Your task to perform on an android device: What's the weather going to be this weekend? Image 0: 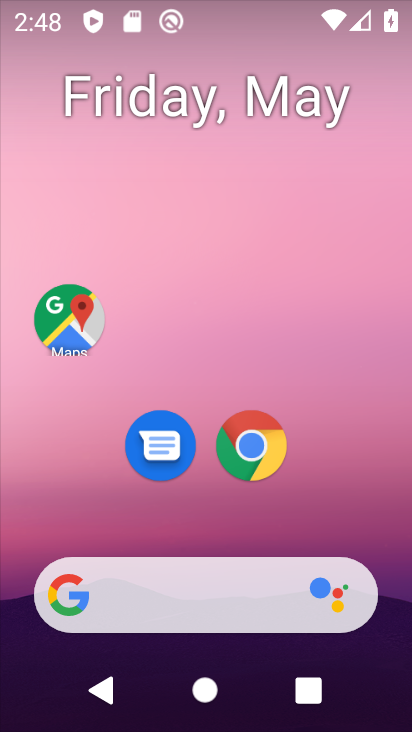
Step 0: drag from (235, 713) to (37, 165)
Your task to perform on an android device: What's the weather going to be this weekend? Image 1: 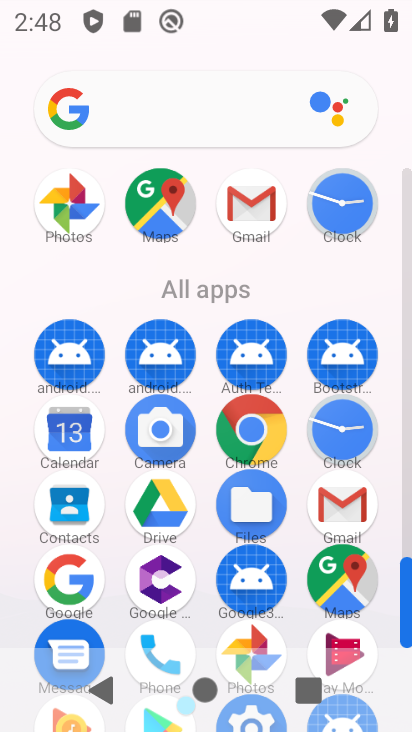
Step 1: press back button
Your task to perform on an android device: What's the weather going to be this weekend? Image 2: 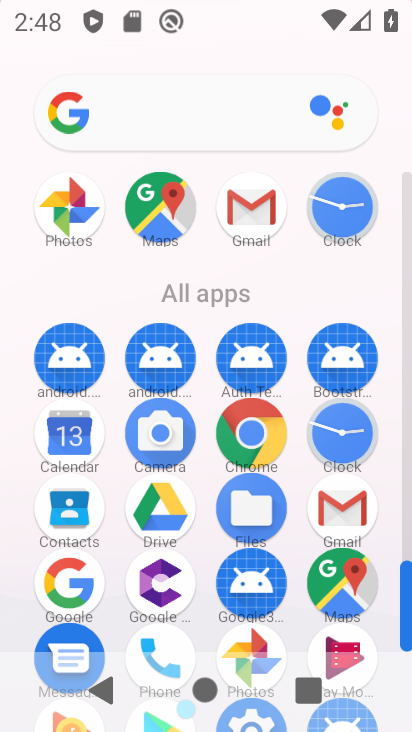
Step 2: press back button
Your task to perform on an android device: What's the weather going to be this weekend? Image 3: 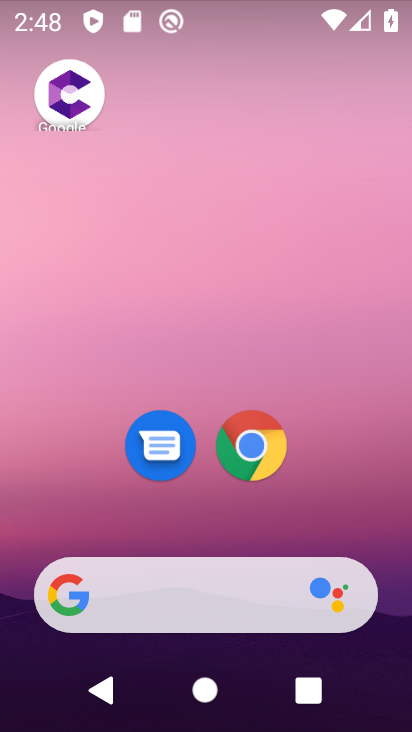
Step 3: drag from (16, 201) to (401, 463)
Your task to perform on an android device: What's the weather going to be this weekend? Image 4: 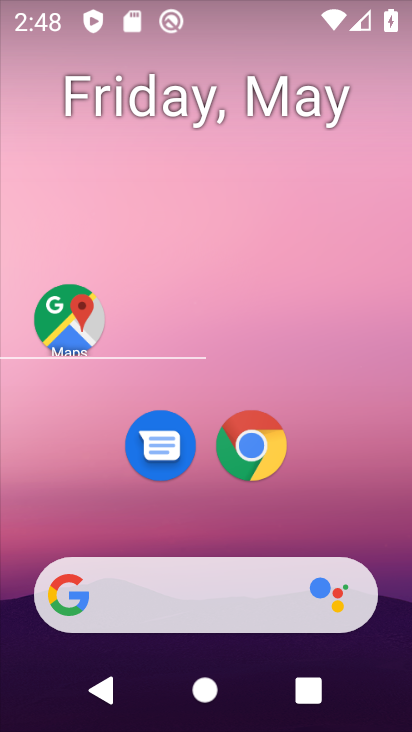
Step 4: drag from (0, 211) to (409, 497)
Your task to perform on an android device: What's the weather going to be this weekend? Image 5: 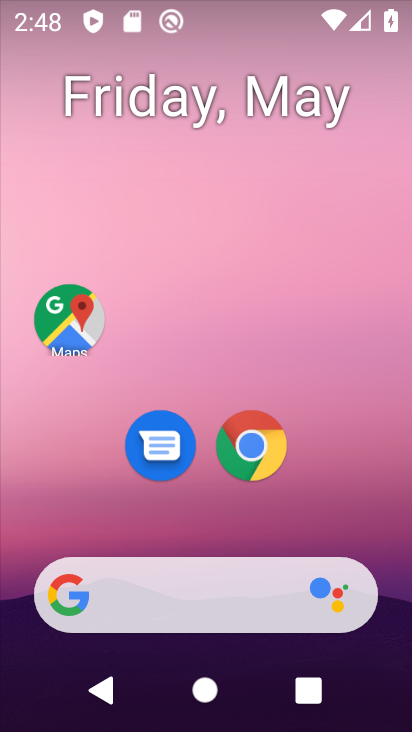
Step 5: drag from (31, 165) to (406, 394)
Your task to perform on an android device: What's the weather going to be this weekend? Image 6: 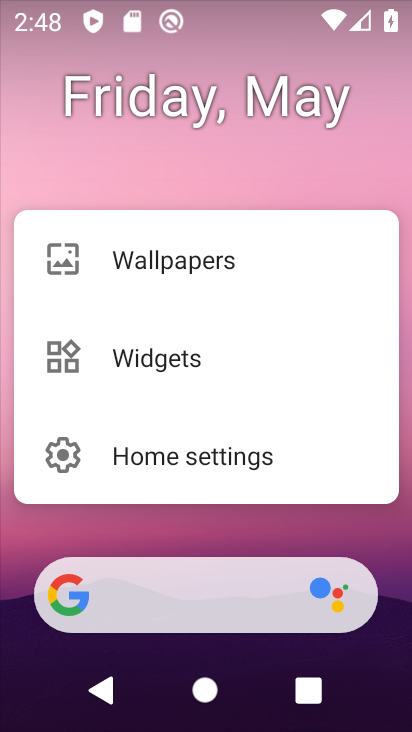
Step 6: click (122, 168)
Your task to perform on an android device: What's the weather going to be this weekend? Image 7: 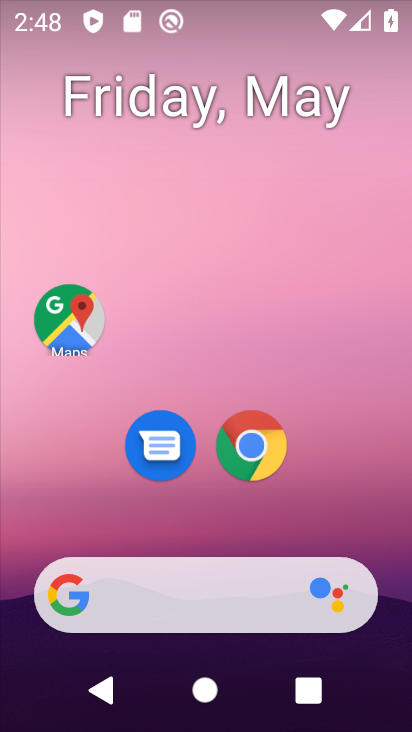
Step 7: click (120, 168)
Your task to perform on an android device: What's the weather going to be this weekend? Image 8: 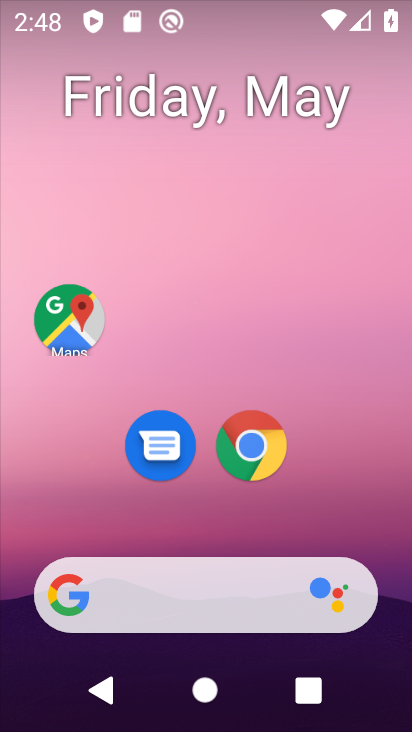
Step 8: drag from (23, 248) to (366, 455)
Your task to perform on an android device: What's the weather going to be this weekend? Image 9: 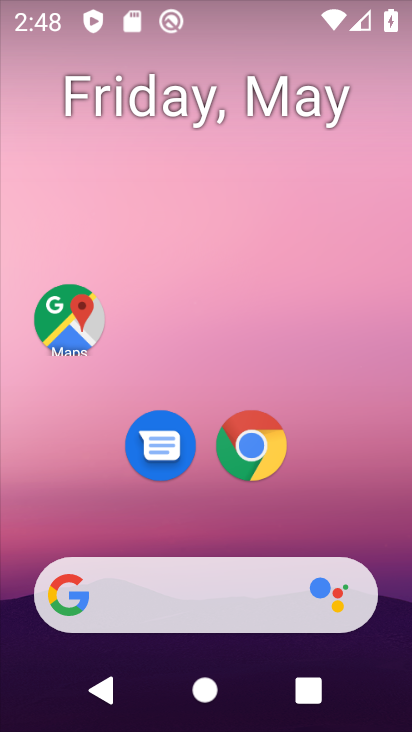
Step 9: click (393, 401)
Your task to perform on an android device: What's the weather going to be this weekend? Image 10: 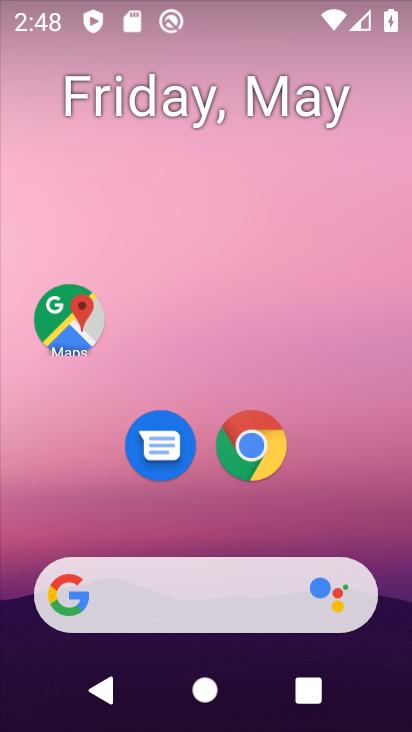
Step 10: drag from (56, 234) to (362, 338)
Your task to perform on an android device: What's the weather going to be this weekend? Image 11: 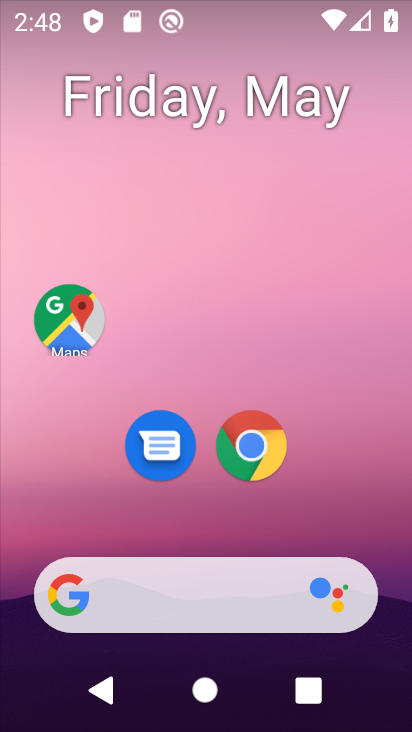
Step 11: drag from (46, 166) to (345, 314)
Your task to perform on an android device: What's the weather going to be this weekend? Image 12: 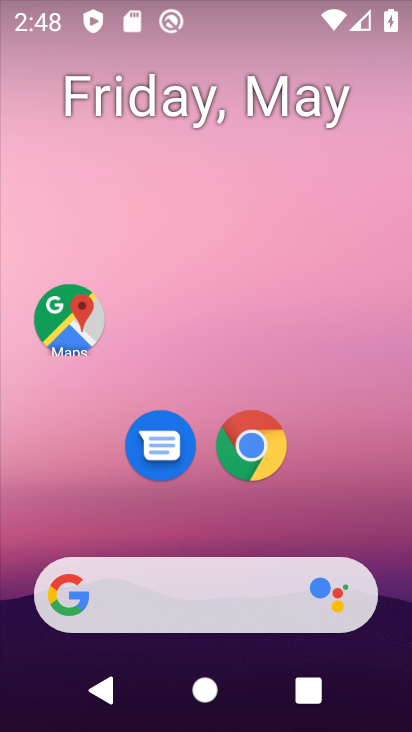
Step 12: drag from (244, 309) to (362, 327)
Your task to perform on an android device: What's the weather going to be this weekend? Image 13: 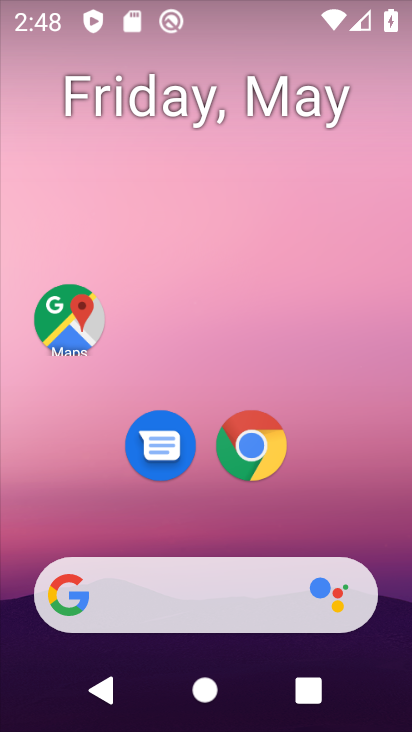
Step 13: drag from (9, 180) to (334, 253)
Your task to perform on an android device: What's the weather going to be this weekend? Image 14: 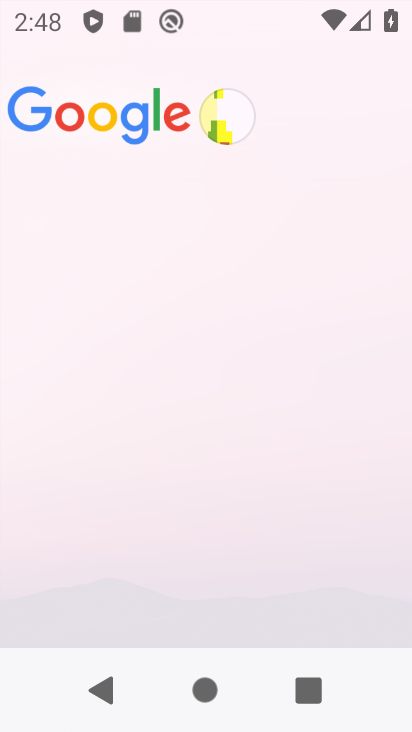
Step 14: drag from (91, 209) to (397, 348)
Your task to perform on an android device: What's the weather going to be this weekend? Image 15: 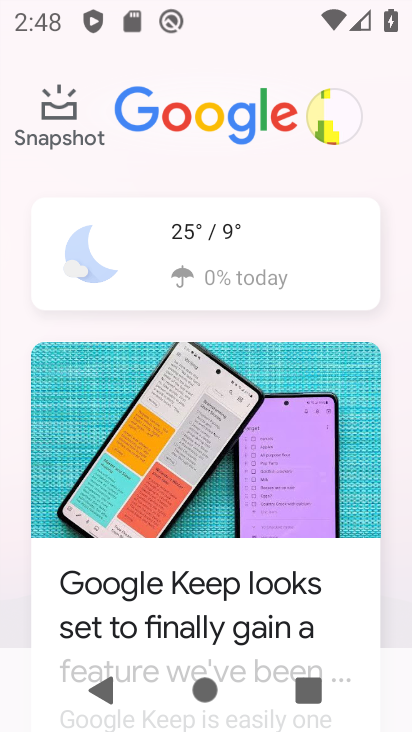
Step 15: click (193, 280)
Your task to perform on an android device: What's the weather going to be this weekend? Image 16: 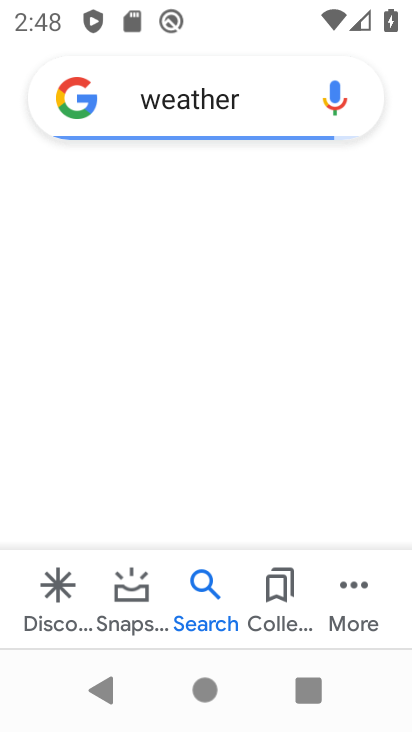
Step 16: click (192, 278)
Your task to perform on an android device: What's the weather going to be this weekend? Image 17: 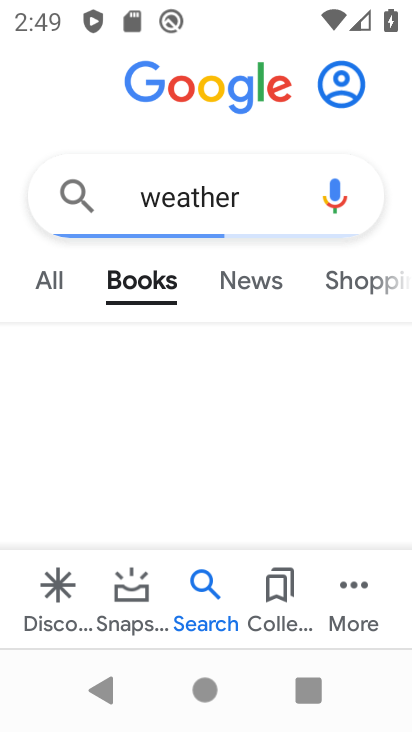
Step 17: task complete